Your task to perform on an android device: Open calendar and show me the fourth week of next month Image 0: 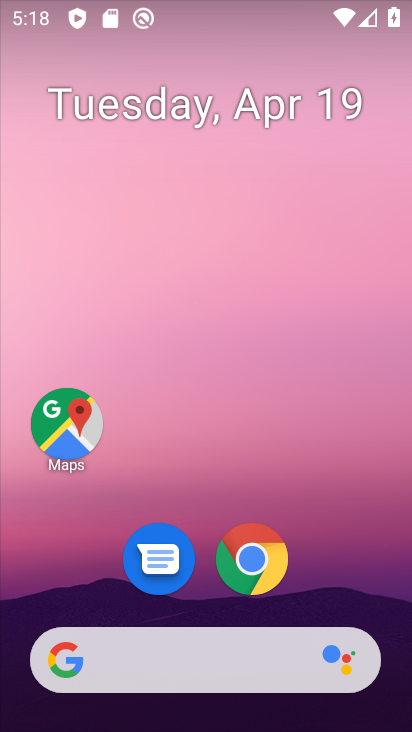
Step 0: drag from (294, 591) to (211, 59)
Your task to perform on an android device: Open calendar and show me the fourth week of next month Image 1: 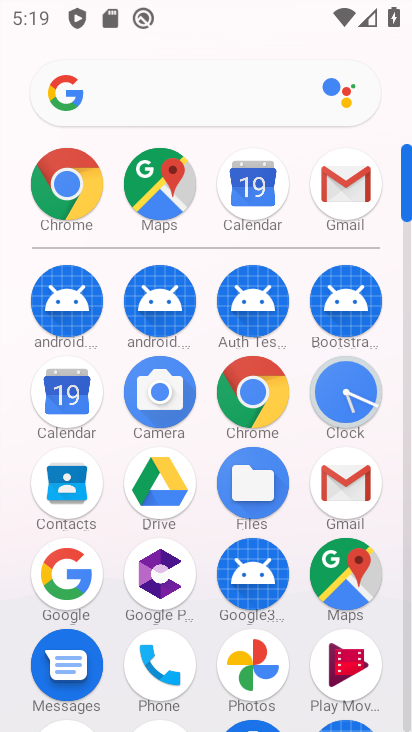
Step 1: click (79, 409)
Your task to perform on an android device: Open calendar and show me the fourth week of next month Image 2: 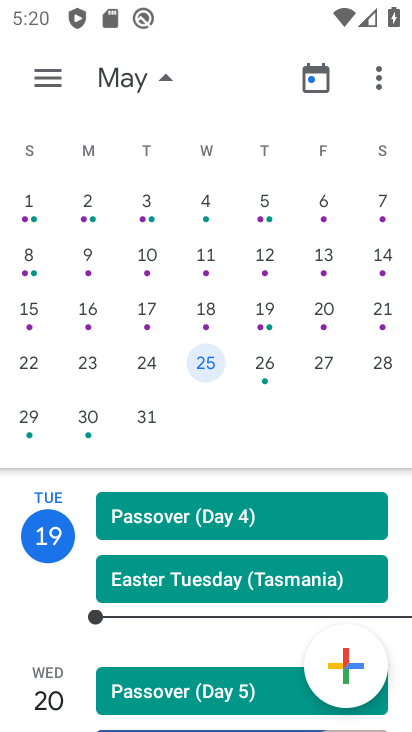
Step 2: task complete